Your task to perform on an android device: Open Chrome and go to the settings page Image 0: 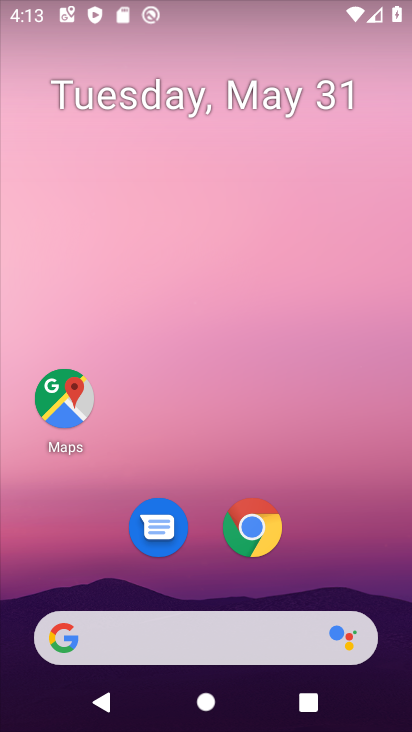
Step 0: drag from (351, 556) to (216, 19)
Your task to perform on an android device: Open Chrome and go to the settings page Image 1: 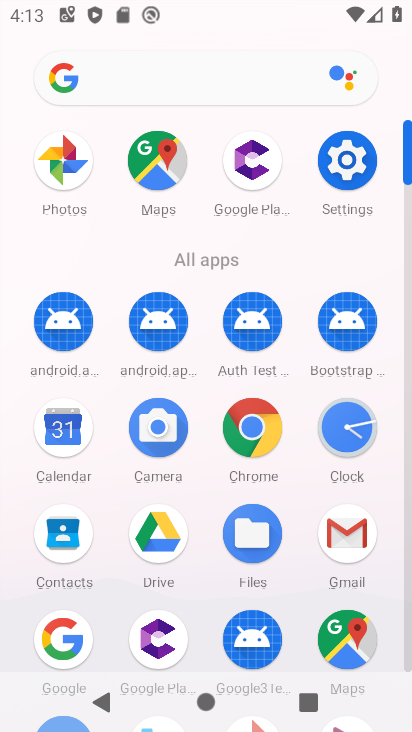
Step 1: click (250, 421)
Your task to perform on an android device: Open Chrome and go to the settings page Image 2: 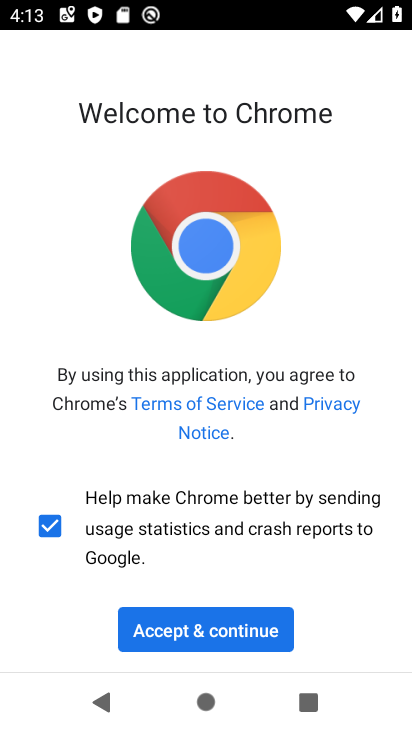
Step 2: click (187, 617)
Your task to perform on an android device: Open Chrome and go to the settings page Image 3: 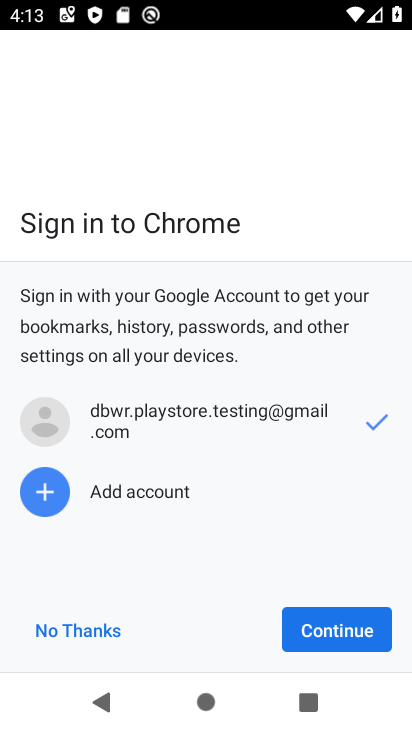
Step 3: click (320, 624)
Your task to perform on an android device: Open Chrome and go to the settings page Image 4: 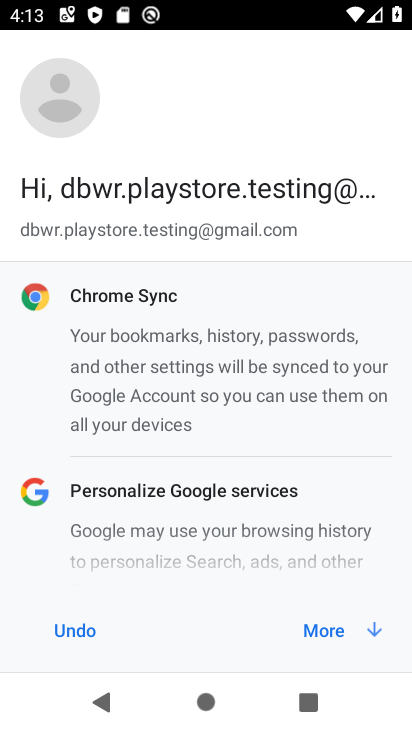
Step 4: click (321, 624)
Your task to perform on an android device: Open Chrome and go to the settings page Image 5: 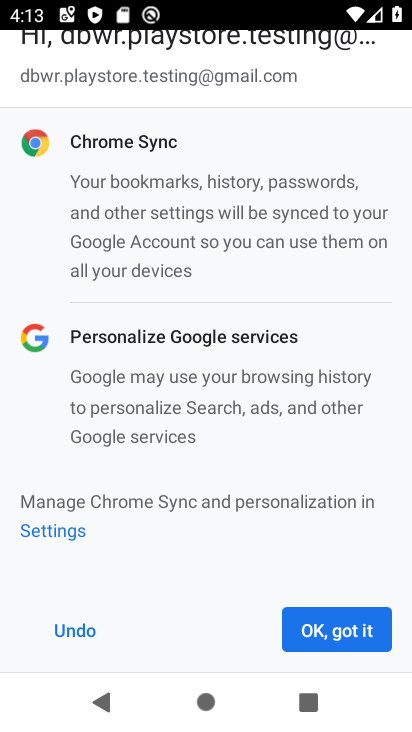
Step 5: click (322, 623)
Your task to perform on an android device: Open Chrome and go to the settings page Image 6: 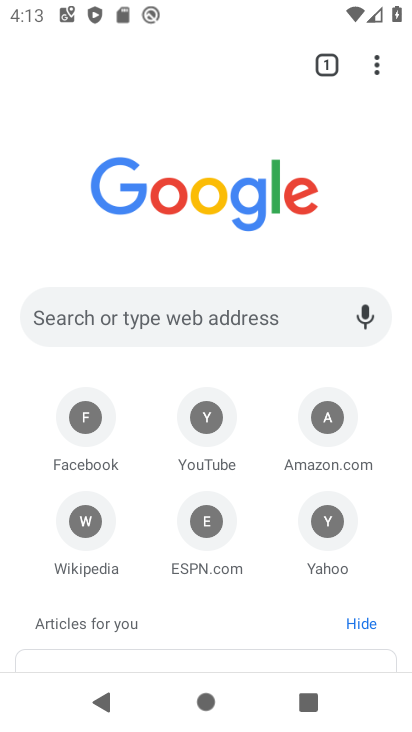
Step 6: task complete